Your task to perform on an android device: change the clock style Image 0: 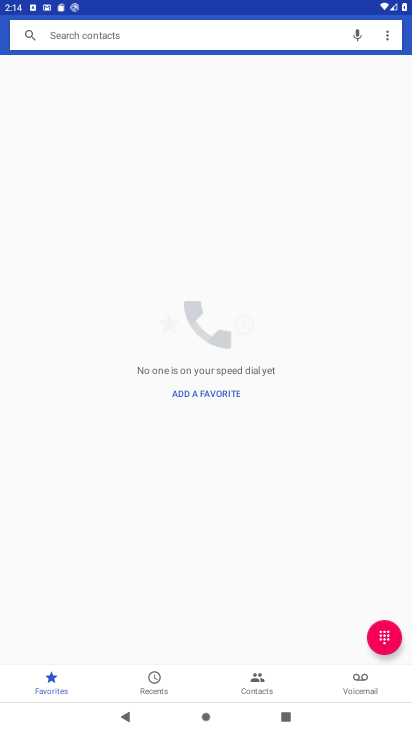
Step 0: press home button
Your task to perform on an android device: change the clock style Image 1: 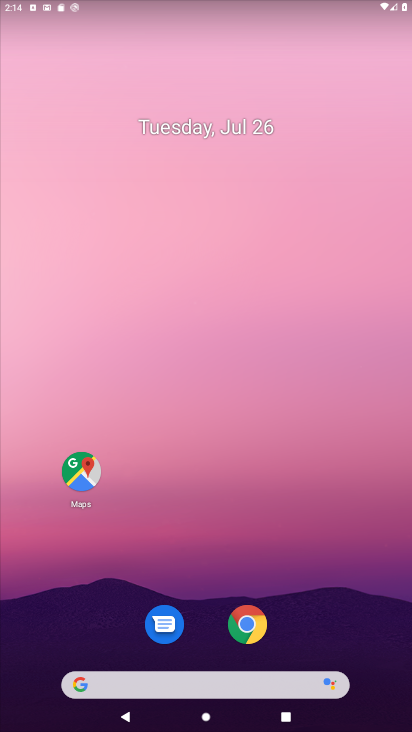
Step 1: drag from (200, 677) to (270, 63)
Your task to perform on an android device: change the clock style Image 2: 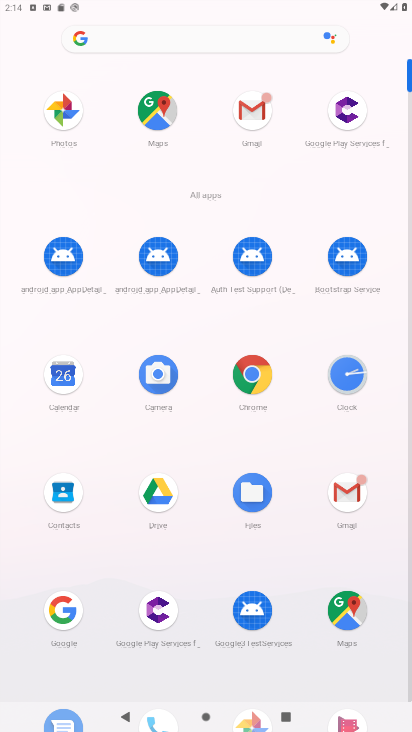
Step 2: click (338, 380)
Your task to perform on an android device: change the clock style Image 3: 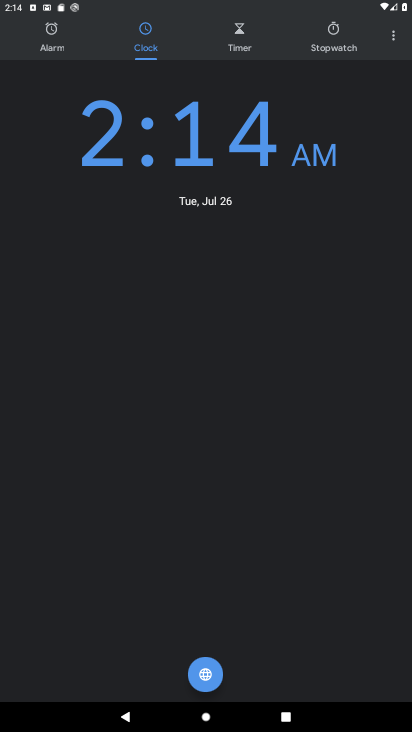
Step 3: click (399, 41)
Your task to perform on an android device: change the clock style Image 4: 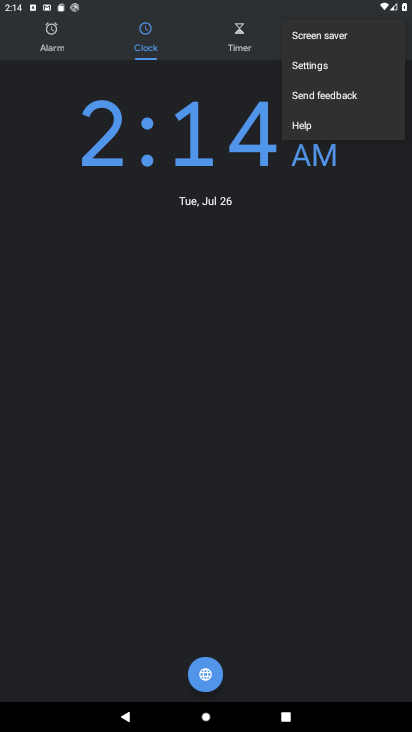
Step 4: click (310, 63)
Your task to perform on an android device: change the clock style Image 5: 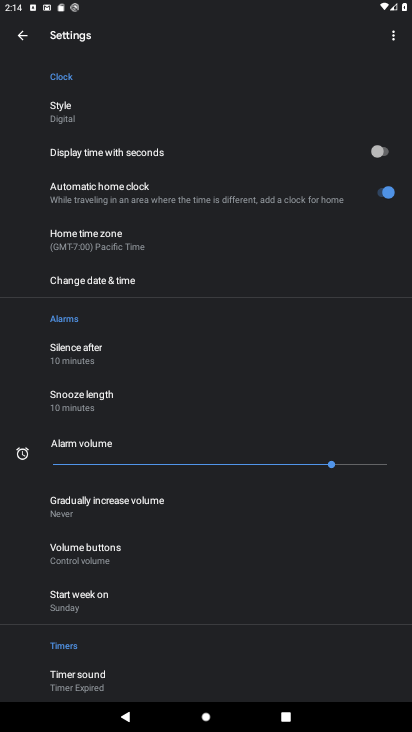
Step 5: click (80, 112)
Your task to perform on an android device: change the clock style Image 6: 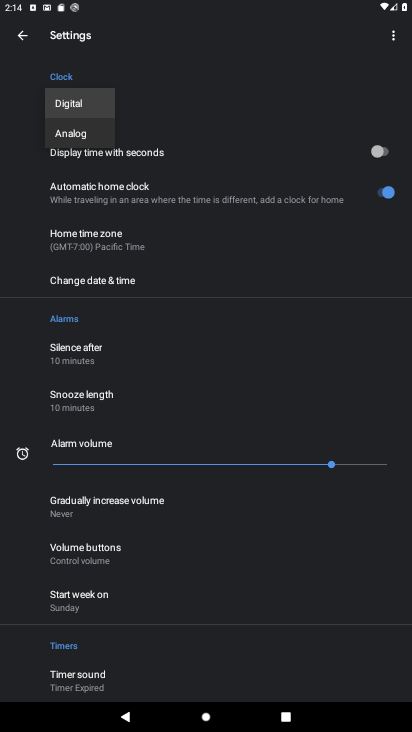
Step 6: click (75, 141)
Your task to perform on an android device: change the clock style Image 7: 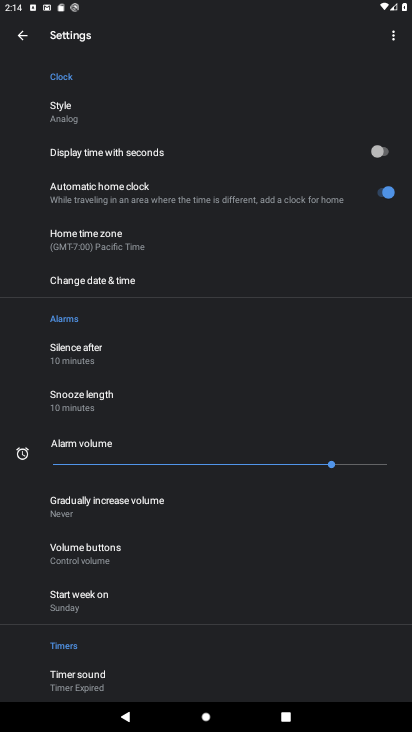
Step 7: task complete